Your task to perform on an android device: Go to privacy settings Image 0: 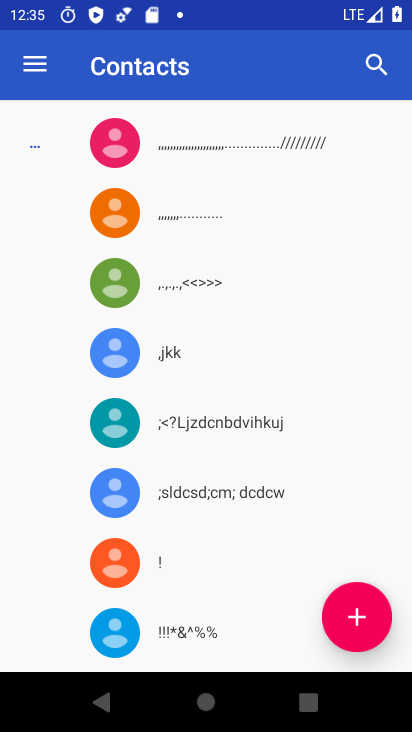
Step 0: press home button
Your task to perform on an android device: Go to privacy settings Image 1: 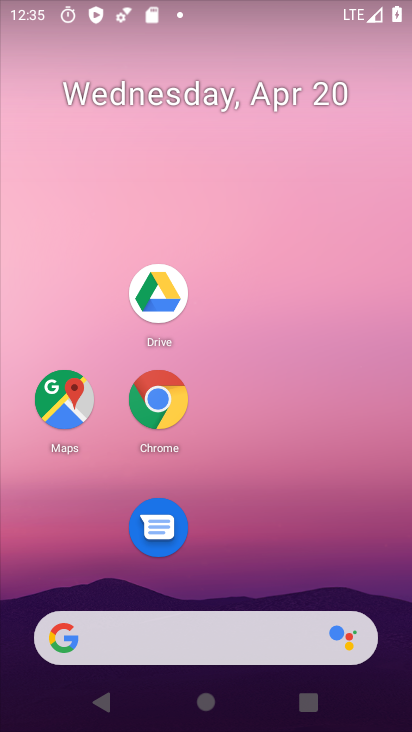
Step 1: drag from (238, 675) to (271, 46)
Your task to perform on an android device: Go to privacy settings Image 2: 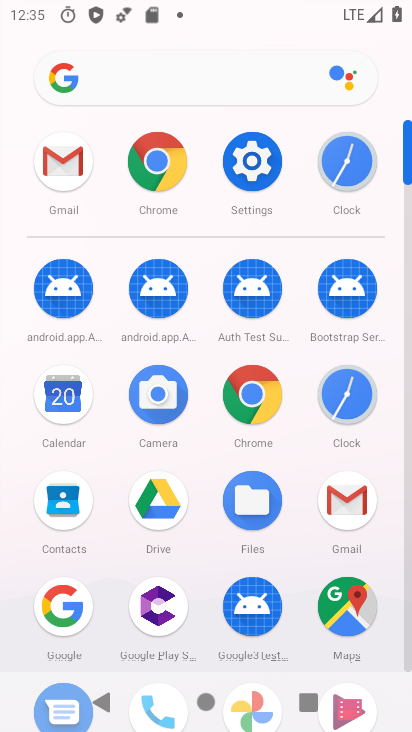
Step 2: click (259, 157)
Your task to perform on an android device: Go to privacy settings Image 3: 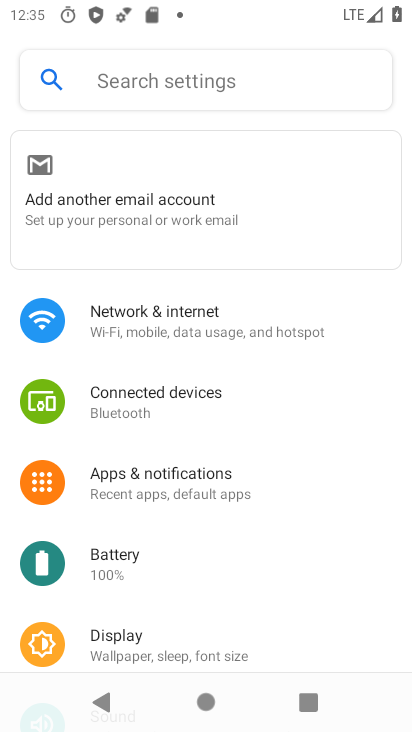
Step 3: drag from (157, 479) to (244, 132)
Your task to perform on an android device: Go to privacy settings Image 4: 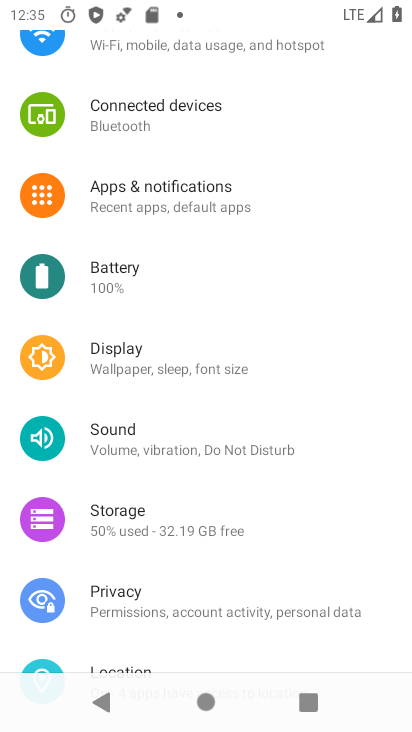
Step 4: click (120, 597)
Your task to perform on an android device: Go to privacy settings Image 5: 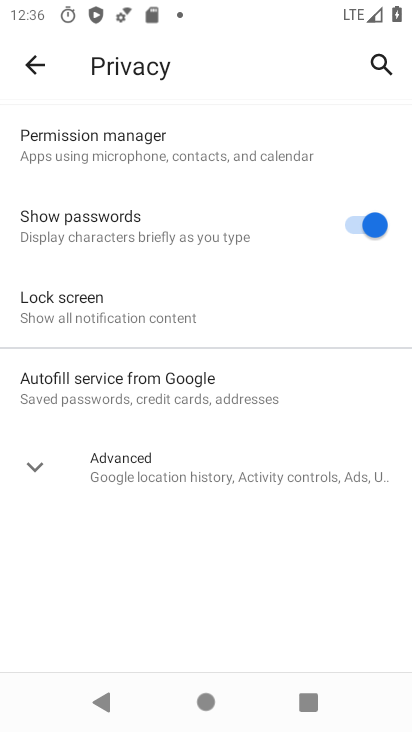
Step 5: click (51, 459)
Your task to perform on an android device: Go to privacy settings Image 6: 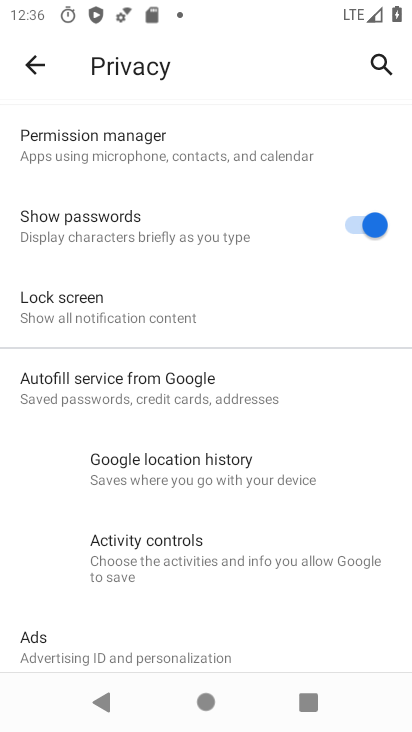
Step 6: task complete